Your task to perform on an android device: Go to accessibility settings Image 0: 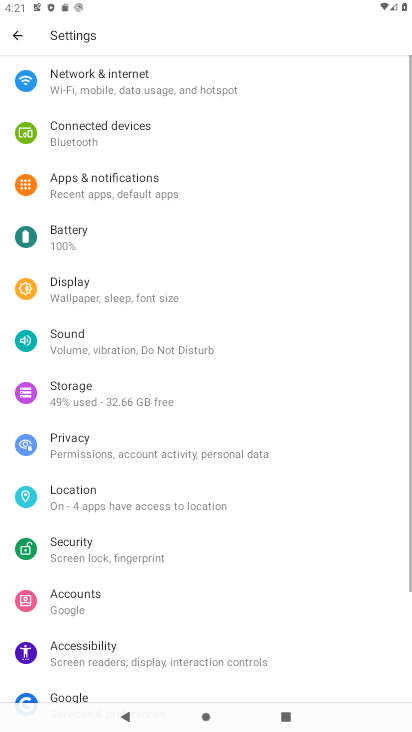
Step 0: click (109, 659)
Your task to perform on an android device: Go to accessibility settings Image 1: 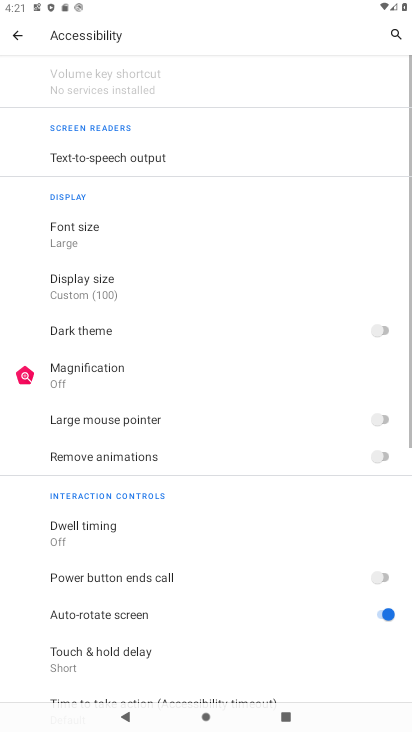
Step 1: task complete